Your task to perform on an android device: toggle notification dots Image 0: 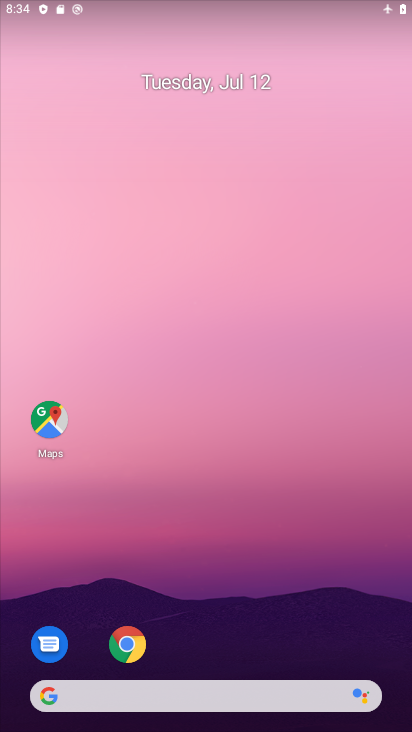
Step 0: drag from (214, 643) to (165, 95)
Your task to perform on an android device: toggle notification dots Image 1: 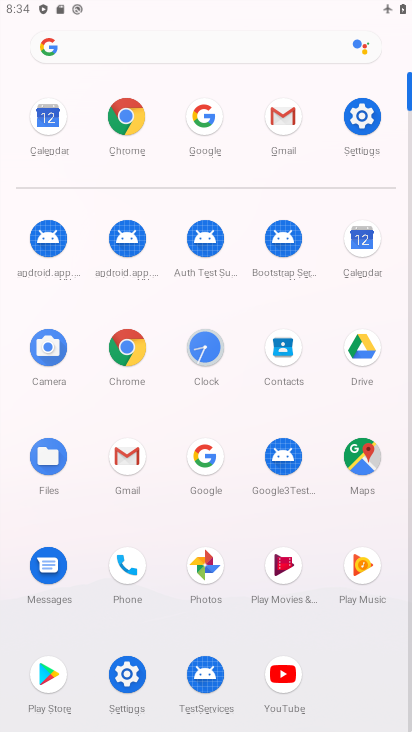
Step 1: click (348, 132)
Your task to perform on an android device: toggle notification dots Image 2: 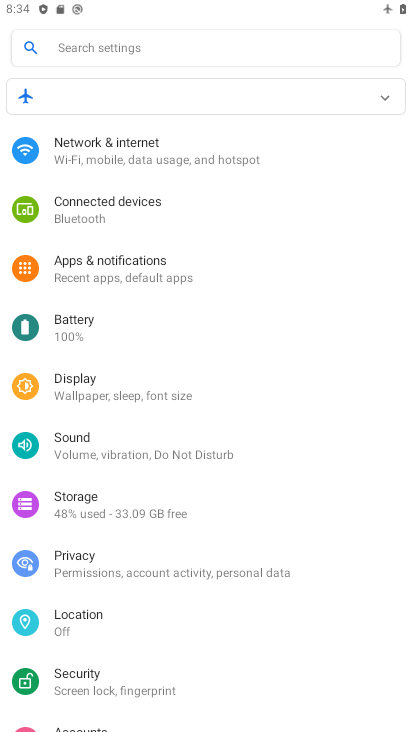
Step 2: click (135, 285)
Your task to perform on an android device: toggle notification dots Image 3: 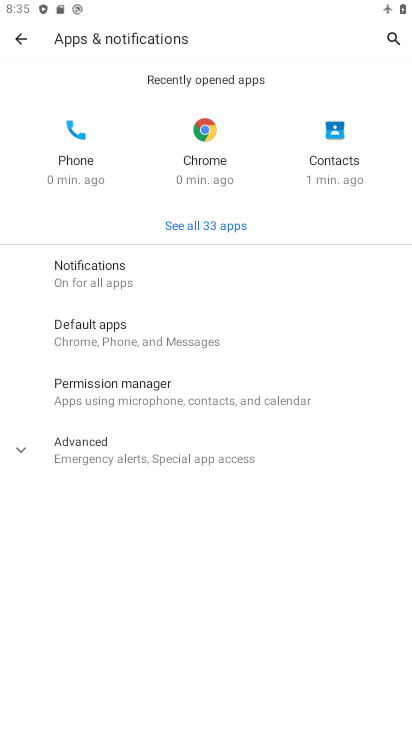
Step 3: click (95, 268)
Your task to perform on an android device: toggle notification dots Image 4: 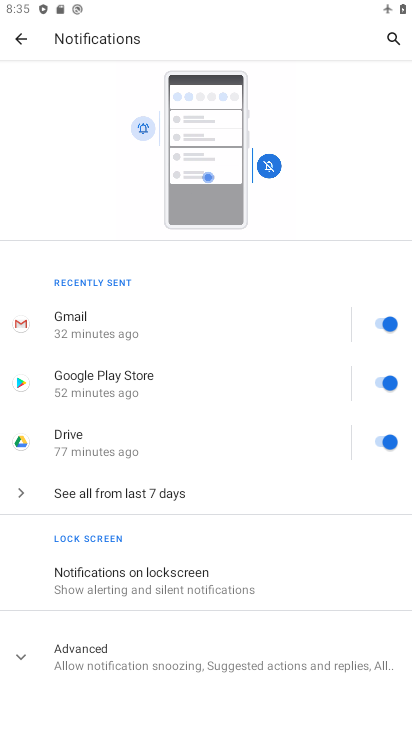
Step 4: drag from (297, 611) to (261, 200)
Your task to perform on an android device: toggle notification dots Image 5: 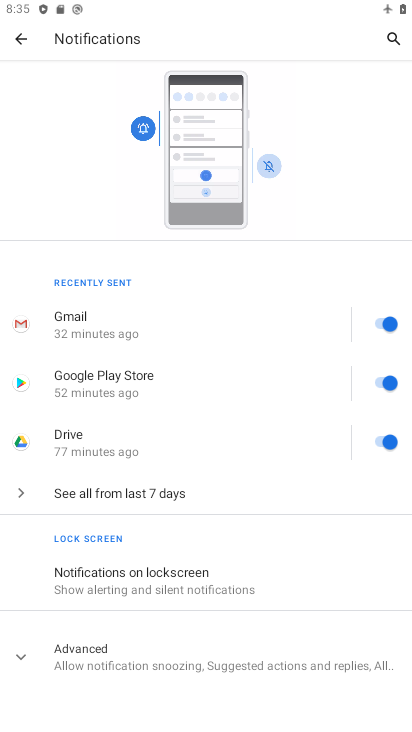
Step 5: click (248, 651)
Your task to perform on an android device: toggle notification dots Image 6: 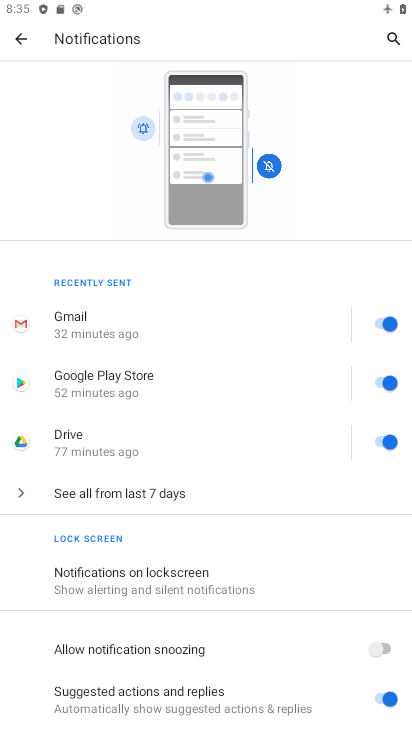
Step 6: drag from (274, 632) to (246, 390)
Your task to perform on an android device: toggle notification dots Image 7: 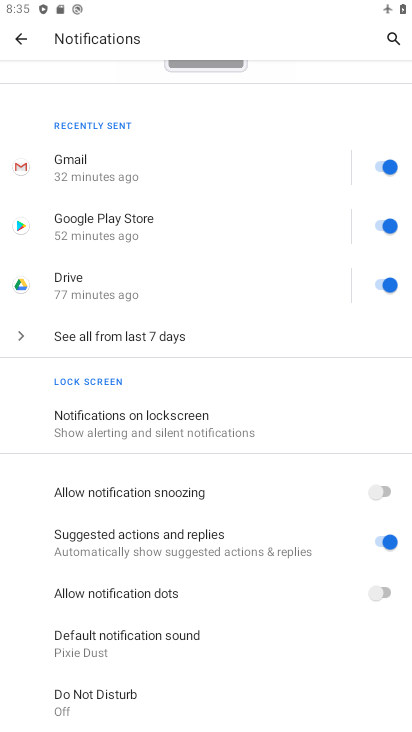
Step 7: click (389, 593)
Your task to perform on an android device: toggle notification dots Image 8: 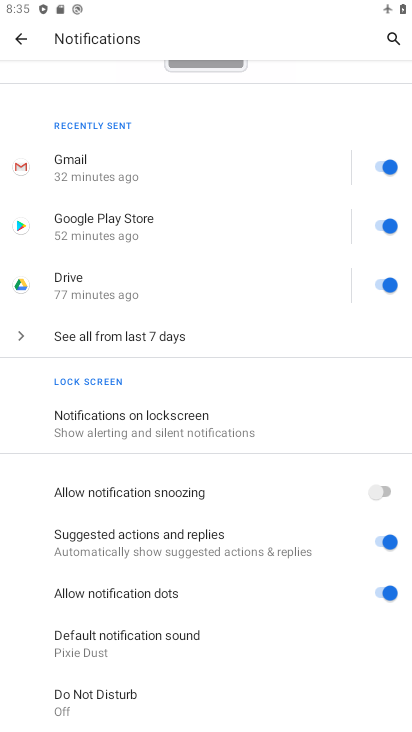
Step 8: task complete